Your task to perform on an android device: open sync settings in chrome Image 0: 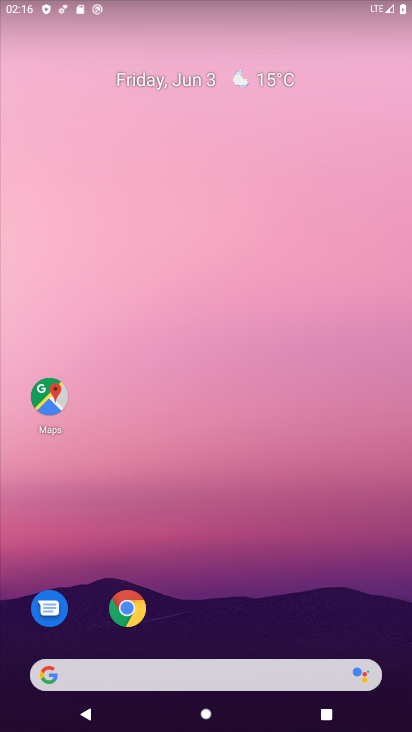
Step 0: click (129, 607)
Your task to perform on an android device: open sync settings in chrome Image 1: 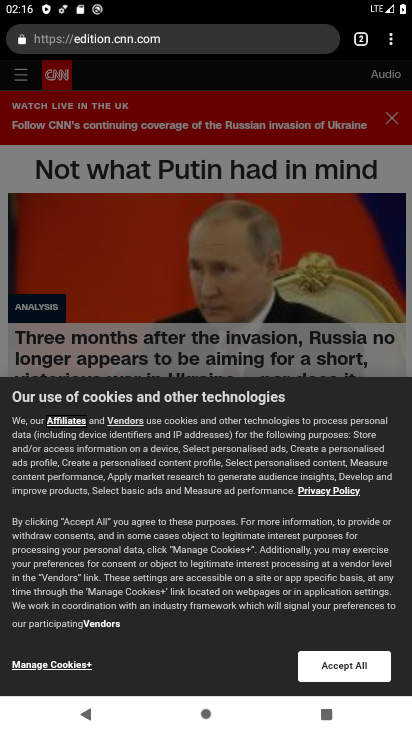
Step 1: drag from (392, 35) to (293, 485)
Your task to perform on an android device: open sync settings in chrome Image 2: 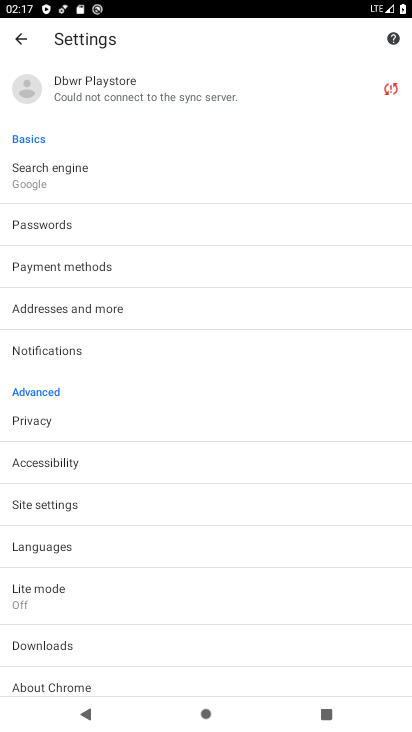
Step 2: click (151, 89)
Your task to perform on an android device: open sync settings in chrome Image 3: 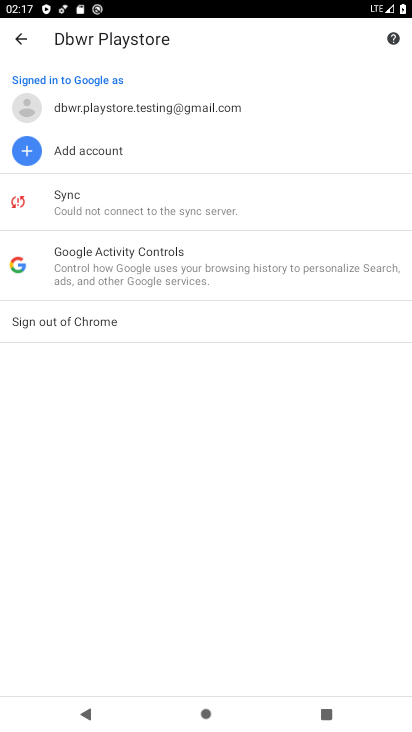
Step 3: click (94, 207)
Your task to perform on an android device: open sync settings in chrome Image 4: 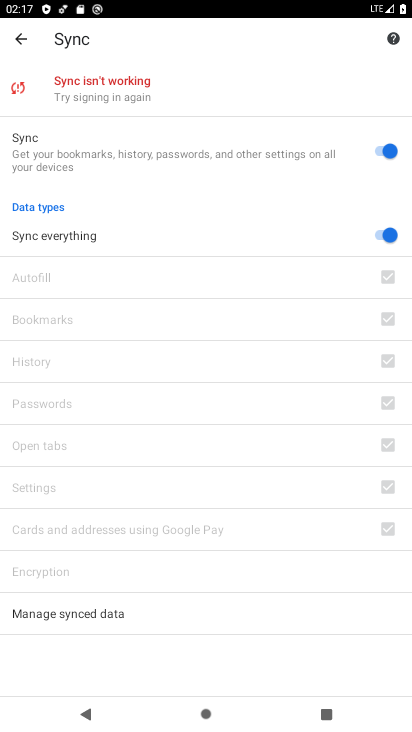
Step 4: task complete